Your task to perform on an android device: open wifi settings Image 0: 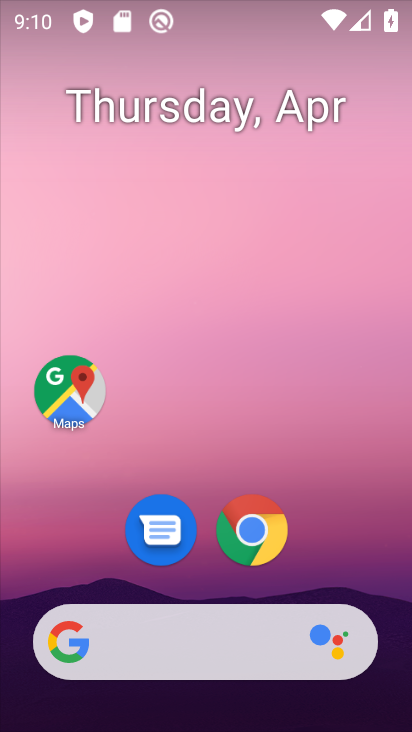
Step 0: drag from (304, 4) to (323, 473)
Your task to perform on an android device: open wifi settings Image 1: 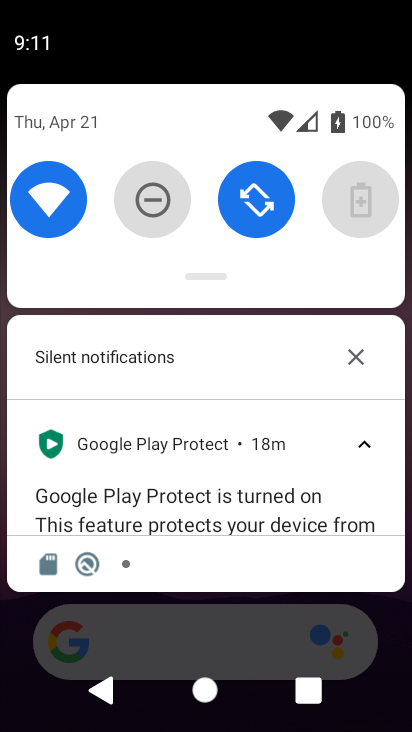
Step 1: click (53, 199)
Your task to perform on an android device: open wifi settings Image 2: 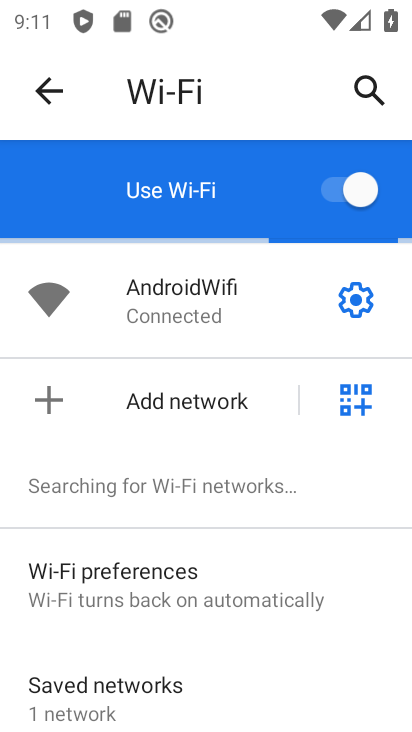
Step 2: task complete